Your task to perform on an android device: turn off location history Image 0: 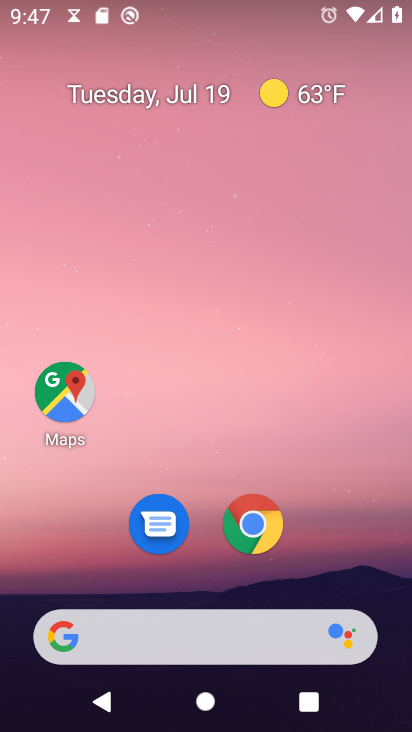
Step 0: click (54, 394)
Your task to perform on an android device: turn off location history Image 1: 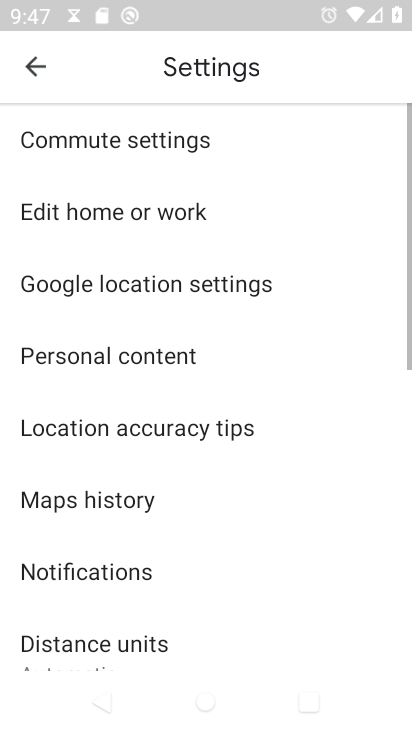
Step 1: click (37, 66)
Your task to perform on an android device: turn off location history Image 2: 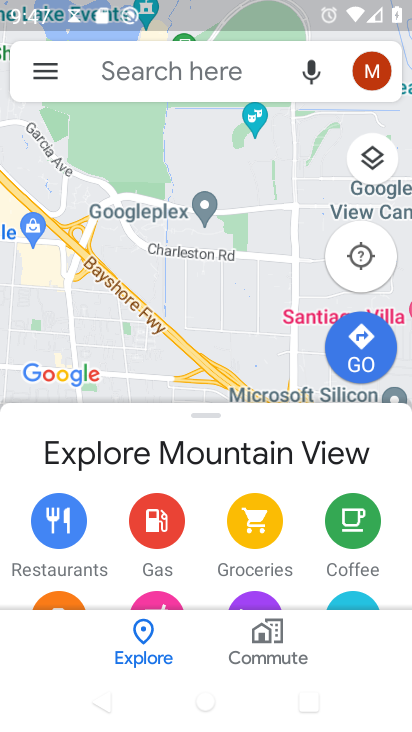
Step 2: click (49, 74)
Your task to perform on an android device: turn off location history Image 3: 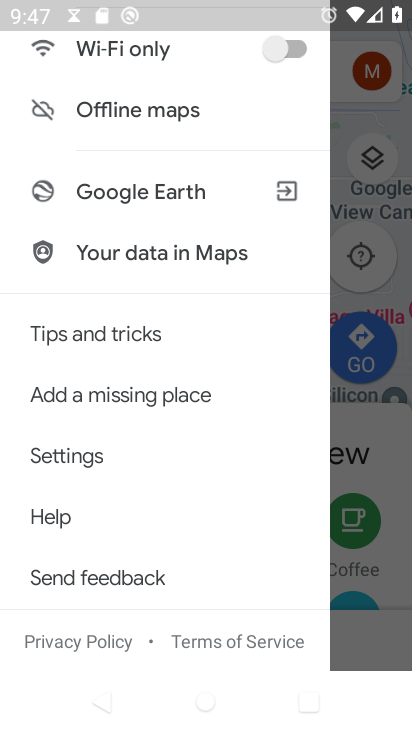
Step 3: drag from (240, 108) to (168, 506)
Your task to perform on an android device: turn off location history Image 4: 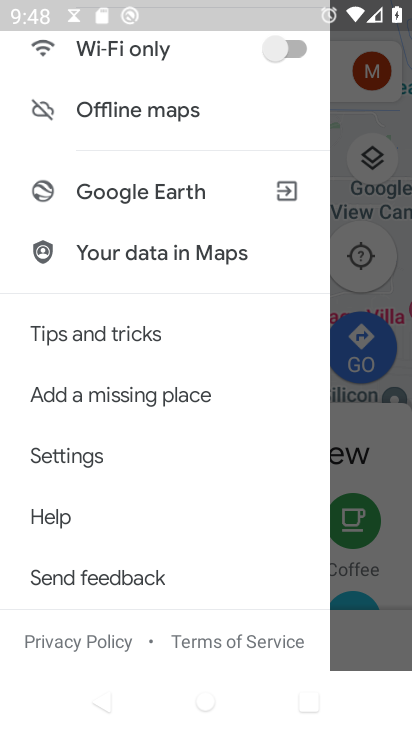
Step 4: drag from (103, 161) to (92, 568)
Your task to perform on an android device: turn off location history Image 5: 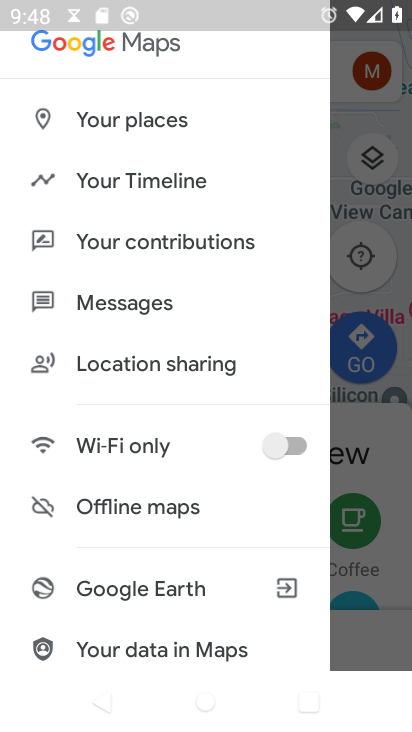
Step 5: click (143, 175)
Your task to perform on an android device: turn off location history Image 6: 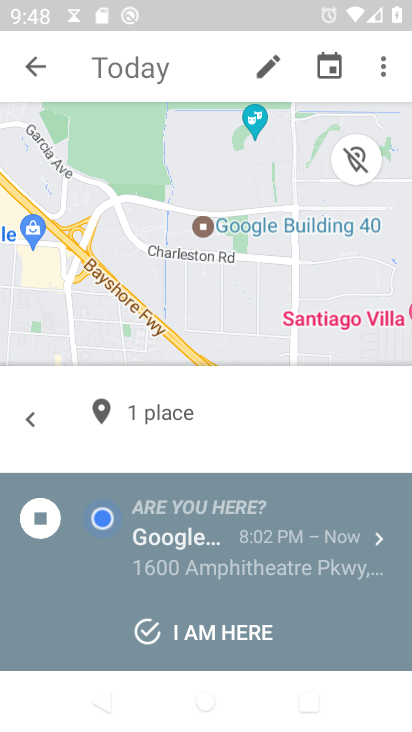
Step 6: click (382, 64)
Your task to perform on an android device: turn off location history Image 7: 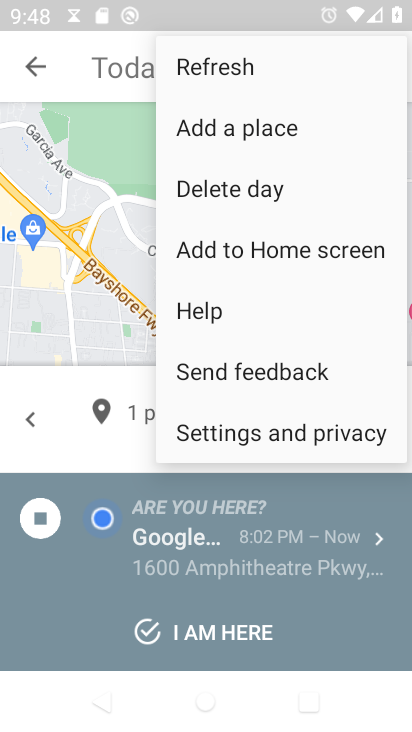
Step 7: click (299, 437)
Your task to perform on an android device: turn off location history Image 8: 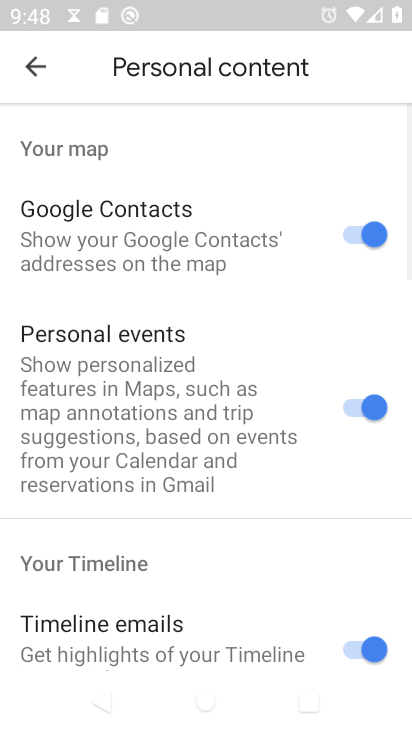
Step 8: drag from (182, 565) to (310, 85)
Your task to perform on an android device: turn off location history Image 9: 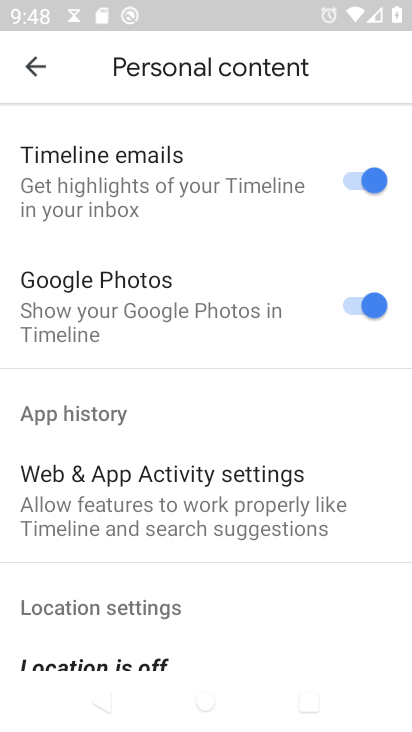
Step 9: drag from (190, 555) to (282, 167)
Your task to perform on an android device: turn off location history Image 10: 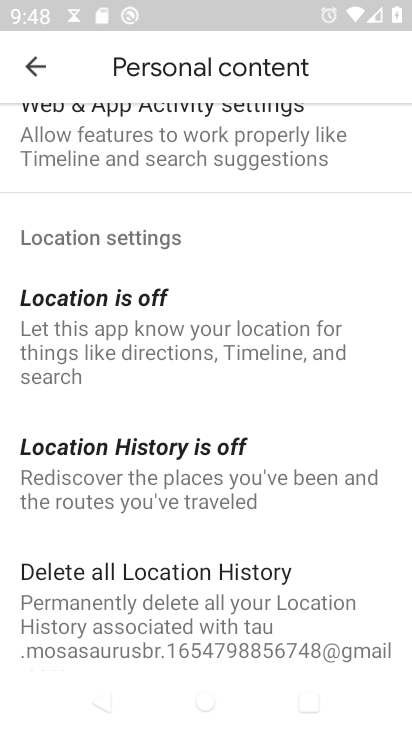
Step 10: click (202, 462)
Your task to perform on an android device: turn off location history Image 11: 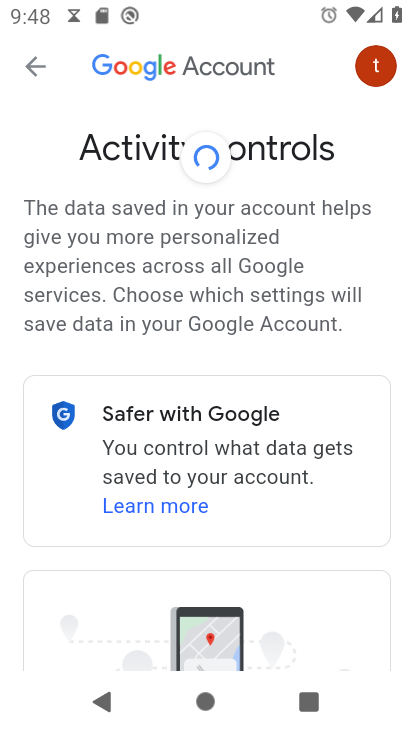
Step 11: drag from (132, 568) to (266, 201)
Your task to perform on an android device: turn off location history Image 12: 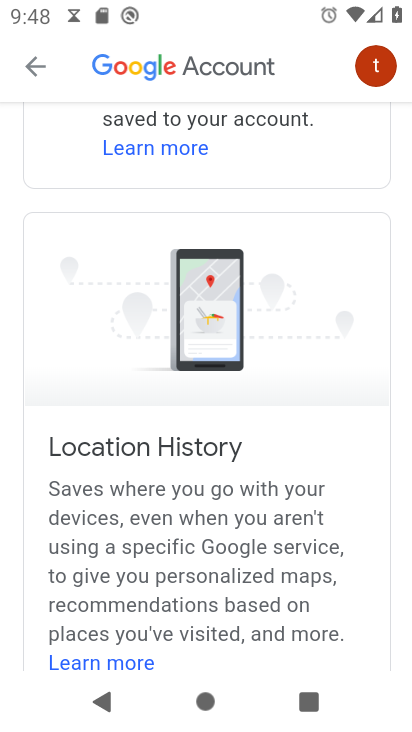
Step 12: drag from (288, 287) to (313, 206)
Your task to perform on an android device: turn off location history Image 13: 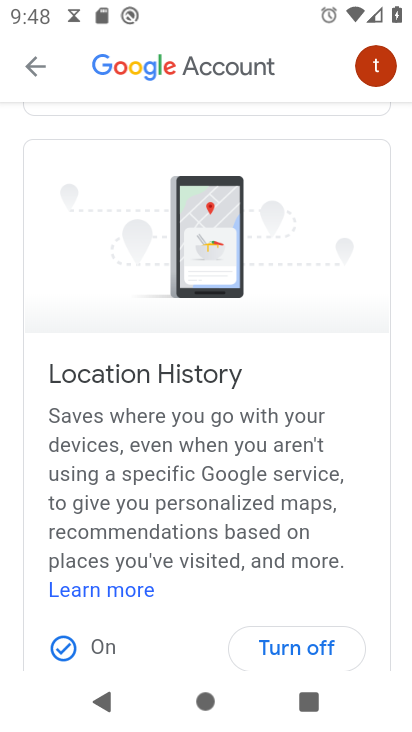
Step 13: drag from (238, 491) to (310, 157)
Your task to perform on an android device: turn off location history Image 14: 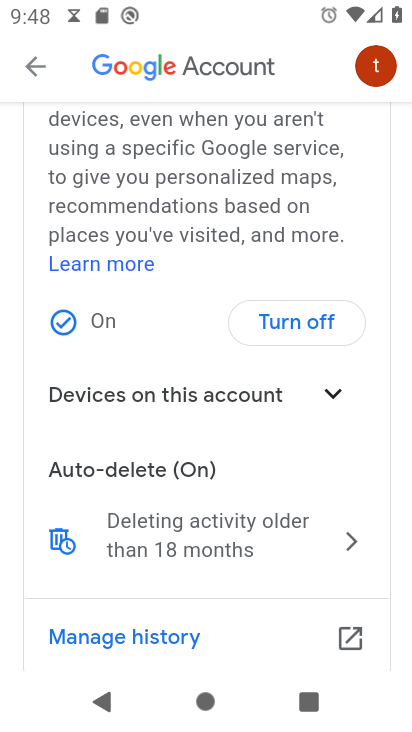
Step 14: click (316, 319)
Your task to perform on an android device: turn off location history Image 15: 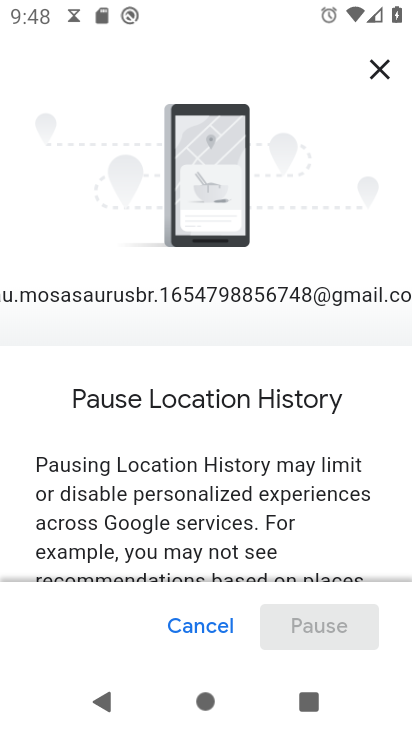
Step 15: drag from (249, 540) to (324, 128)
Your task to perform on an android device: turn off location history Image 16: 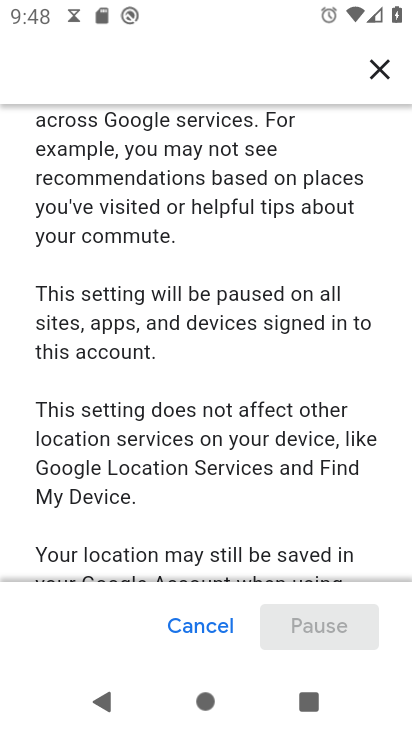
Step 16: drag from (237, 520) to (328, 92)
Your task to perform on an android device: turn off location history Image 17: 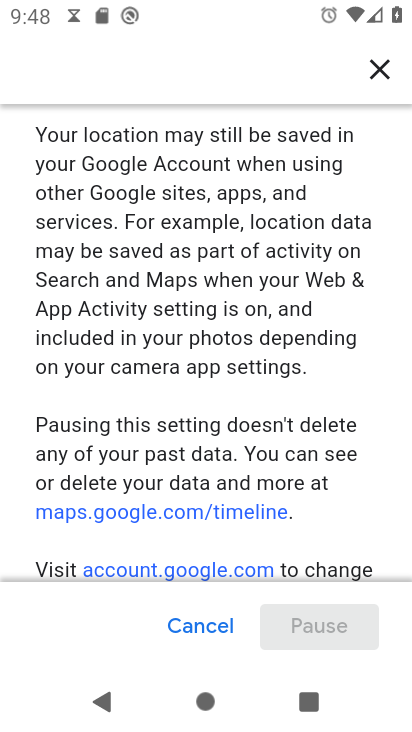
Step 17: drag from (271, 427) to (313, 106)
Your task to perform on an android device: turn off location history Image 18: 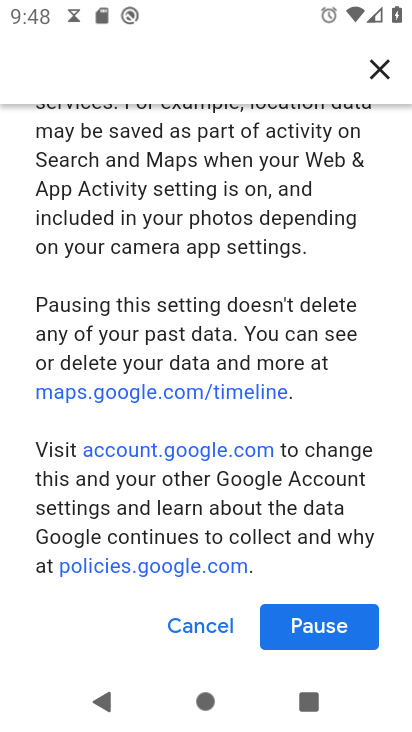
Step 18: click (320, 627)
Your task to perform on an android device: turn off location history Image 19: 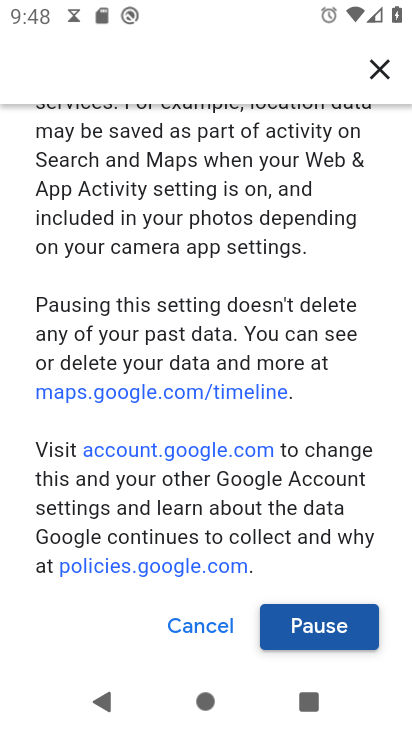
Step 19: click (318, 623)
Your task to perform on an android device: turn off location history Image 20: 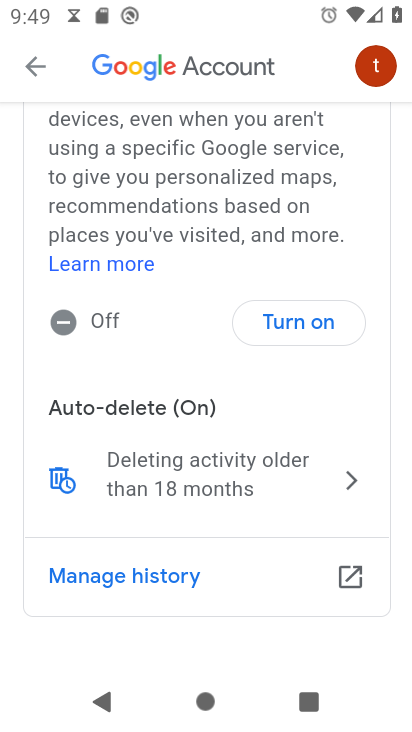
Step 20: task complete